Your task to perform on an android device: check battery use Image 0: 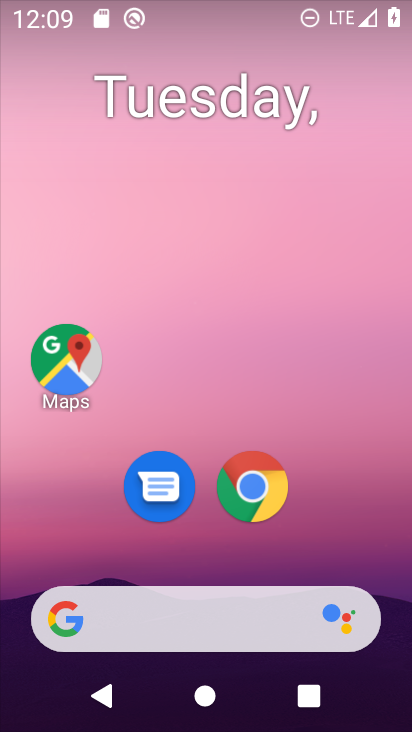
Step 0: drag from (44, 572) to (406, 202)
Your task to perform on an android device: check battery use Image 1: 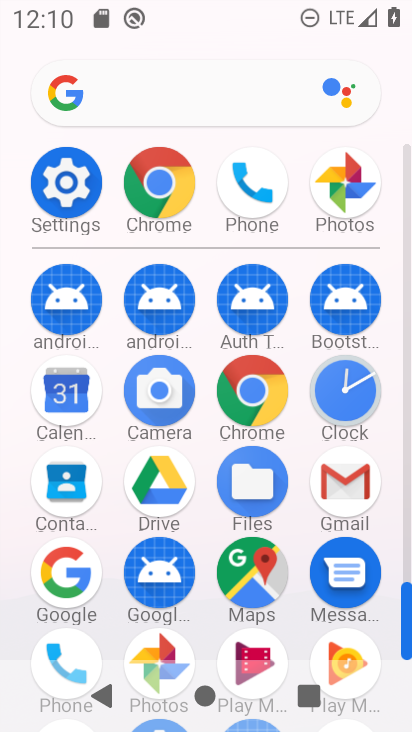
Step 1: click (54, 189)
Your task to perform on an android device: check battery use Image 2: 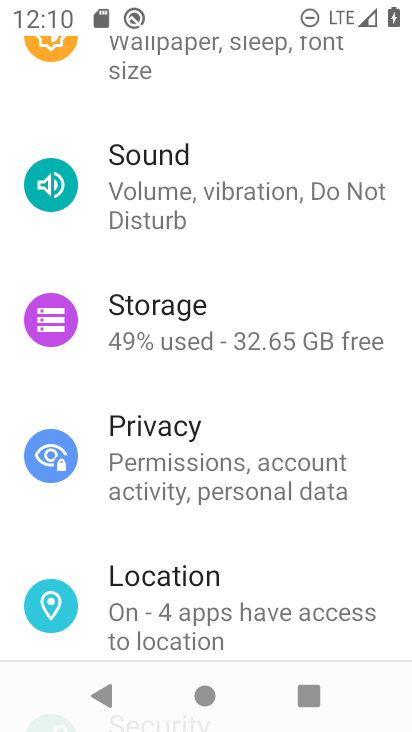
Step 2: task complete